Your task to perform on an android device: set an alarm Image 0: 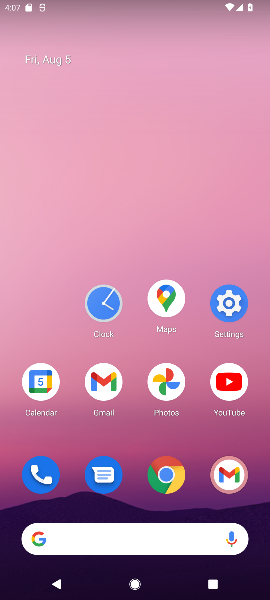
Step 0: click (105, 304)
Your task to perform on an android device: set an alarm Image 1: 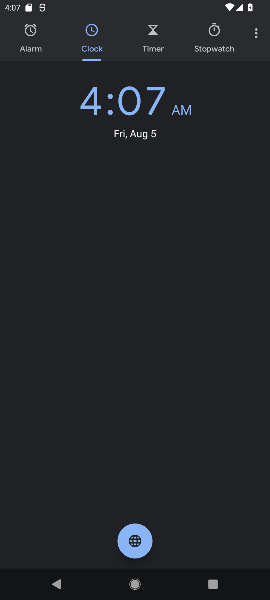
Step 1: click (35, 41)
Your task to perform on an android device: set an alarm Image 2: 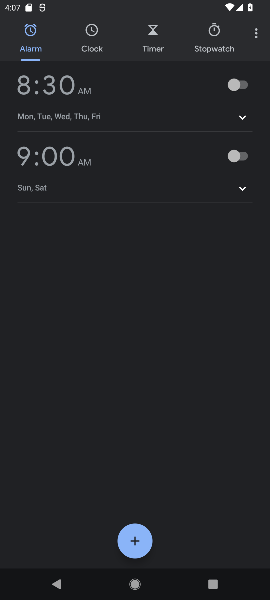
Step 2: click (241, 81)
Your task to perform on an android device: set an alarm Image 3: 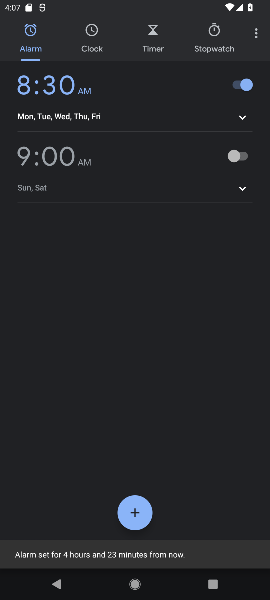
Step 3: task complete